Your task to perform on an android device: Show me popular videos on Youtube Image 0: 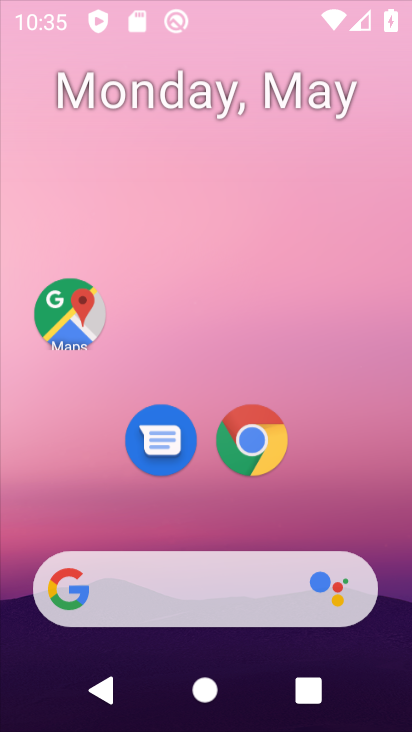
Step 0: click (268, 434)
Your task to perform on an android device: Show me popular videos on Youtube Image 1: 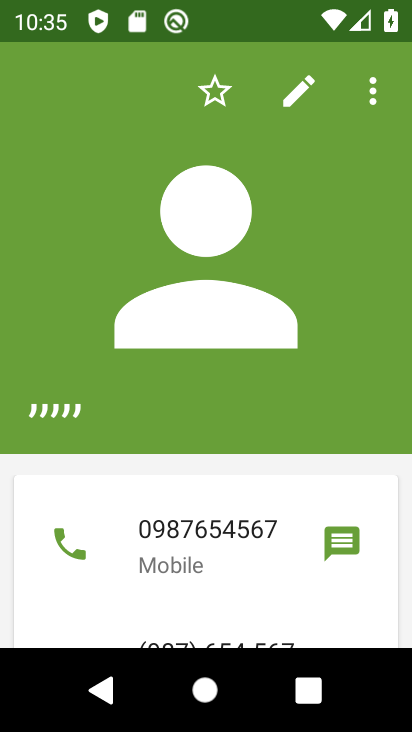
Step 1: press home button
Your task to perform on an android device: Show me popular videos on Youtube Image 2: 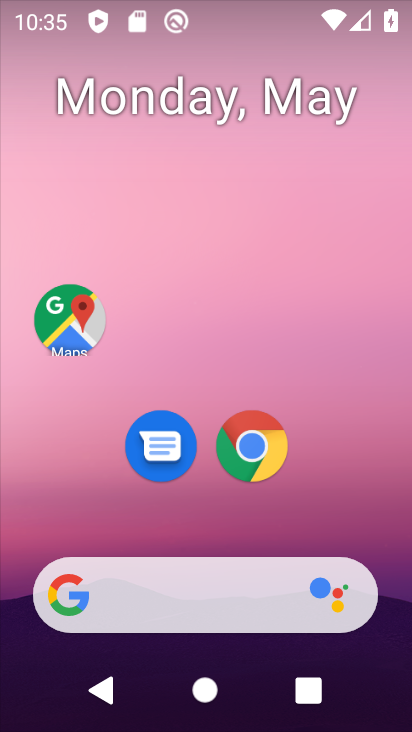
Step 2: drag from (188, 587) to (121, 20)
Your task to perform on an android device: Show me popular videos on Youtube Image 3: 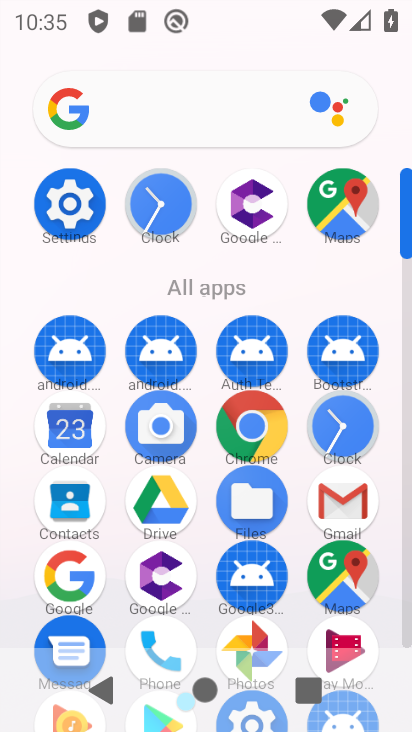
Step 3: drag from (206, 531) to (154, 21)
Your task to perform on an android device: Show me popular videos on Youtube Image 4: 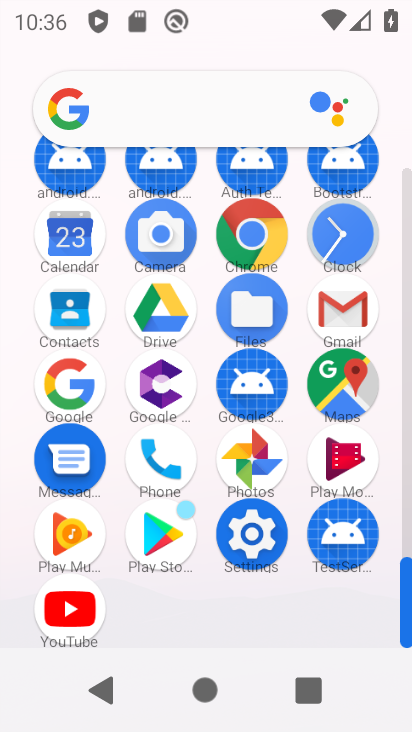
Step 4: click (72, 606)
Your task to perform on an android device: Show me popular videos on Youtube Image 5: 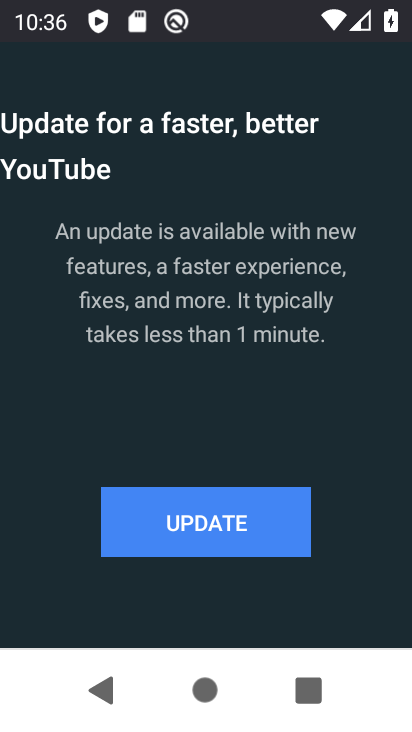
Step 5: click (214, 508)
Your task to perform on an android device: Show me popular videos on Youtube Image 6: 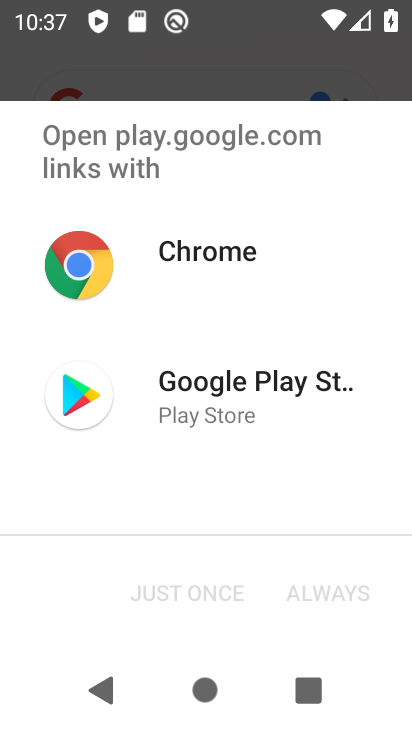
Step 6: click (187, 413)
Your task to perform on an android device: Show me popular videos on Youtube Image 7: 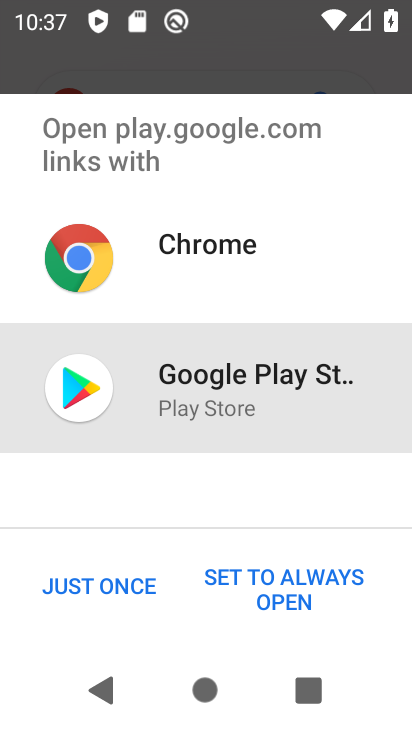
Step 7: click (111, 592)
Your task to perform on an android device: Show me popular videos on Youtube Image 8: 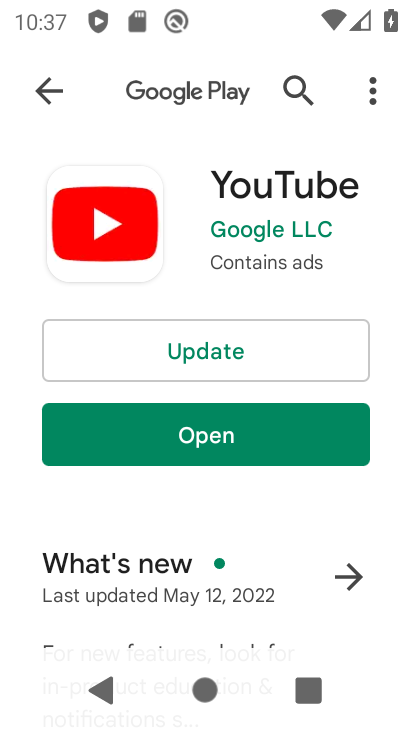
Step 8: click (207, 363)
Your task to perform on an android device: Show me popular videos on Youtube Image 9: 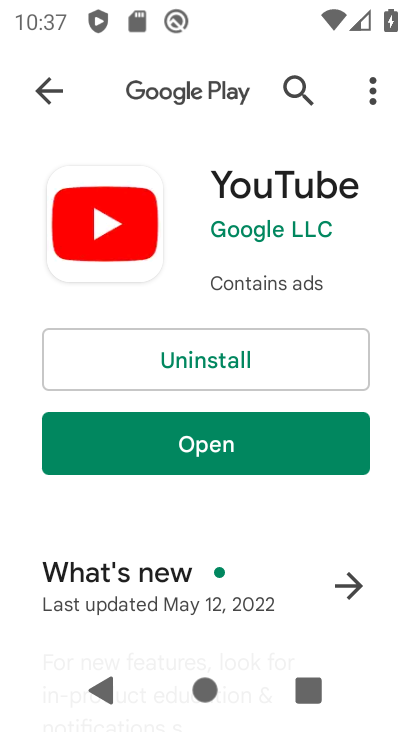
Step 9: click (218, 442)
Your task to perform on an android device: Show me popular videos on Youtube Image 10: 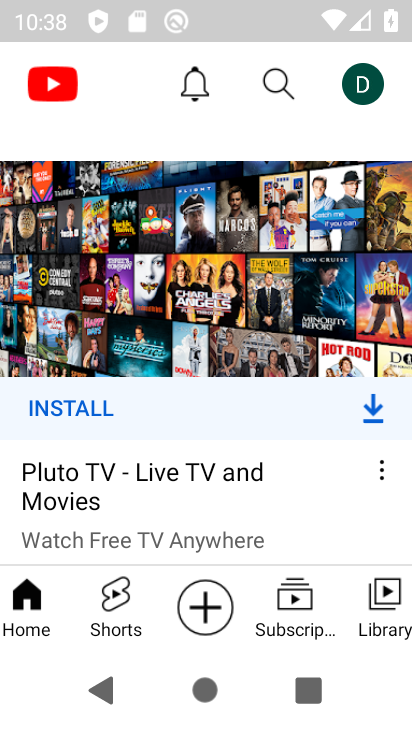
Step 10: task complete